Your task to perform on an android device: Open calendar and show me the first week of next month Image 0: 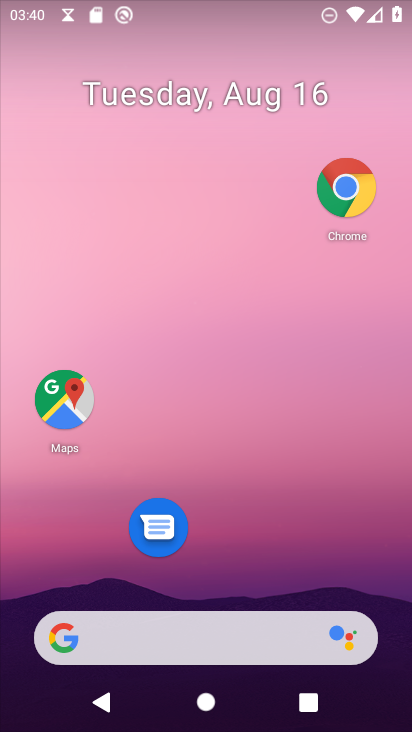
Step 0: drag from (224, 583) to (258, 13)
Your task to perform on an android device: Open calendar and show me the first week of next month Image 1: 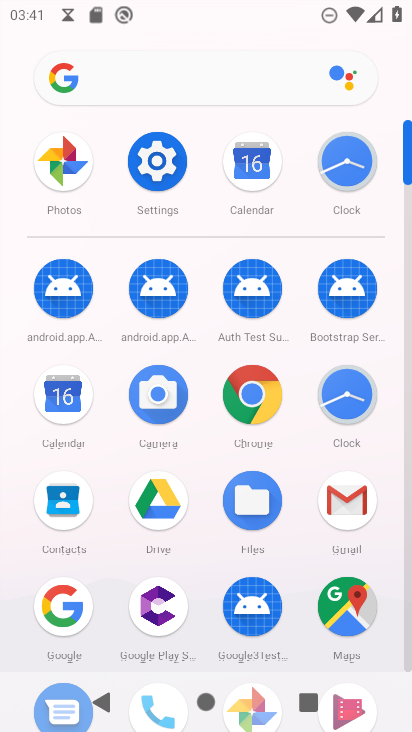
Step 1: click (61, 394)
Your task to perform on an android device: Open calendar and show me the first week of next month Image 2: 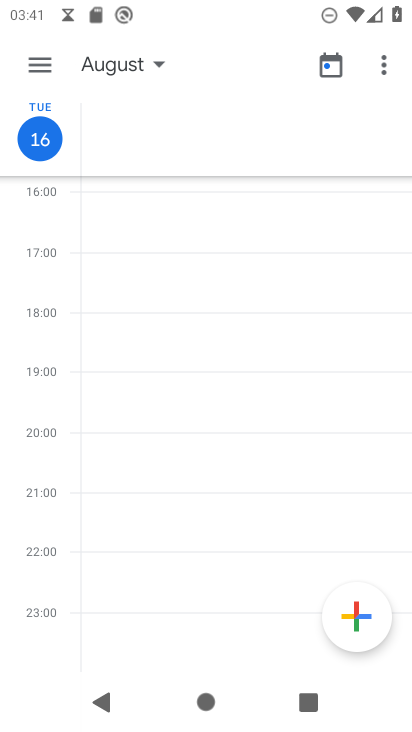
Step 2: click (35, 67)
Your task to perform on an android device: Open calendar and show me the first week of next month Image 3: 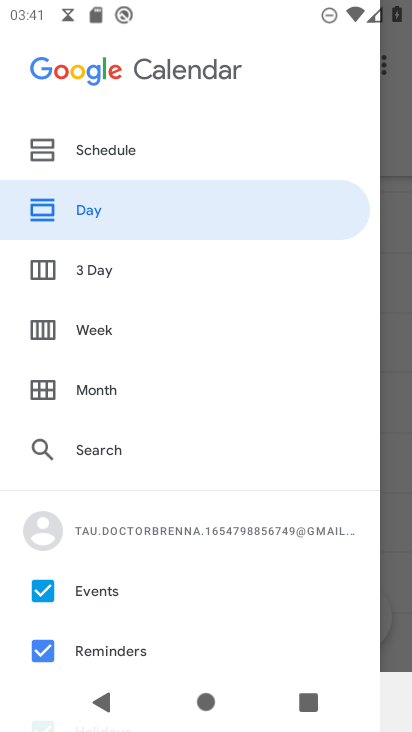
Step 3: drag from (170, 620) to (189, 283)
Your task to perform on an android device: Open calendar and show me the first week of next month Image 4: 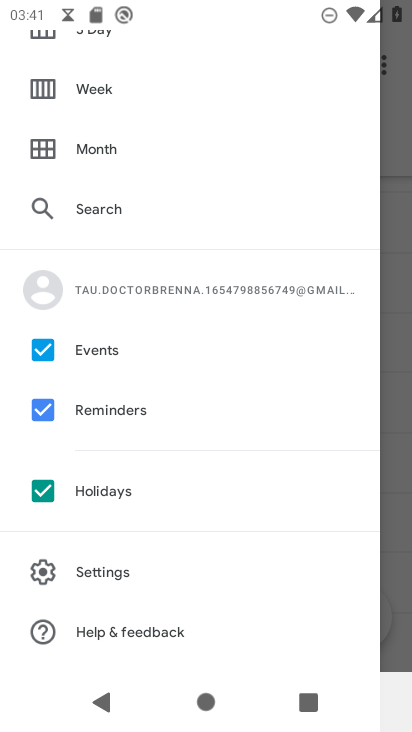
Step 4: click (67, 67)
Your task to perform on an android device: Open calendar and show me the first week of next month Image 5: 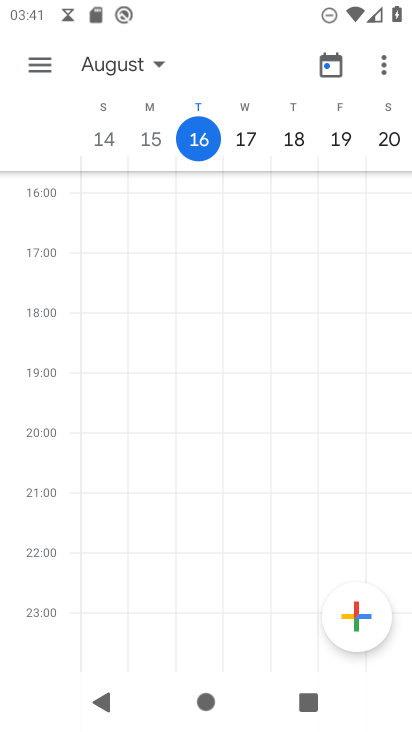
Step 5: click (153, 60)
Your task to perform on an android device: Open calendar and show me the first week of next month Image 6: 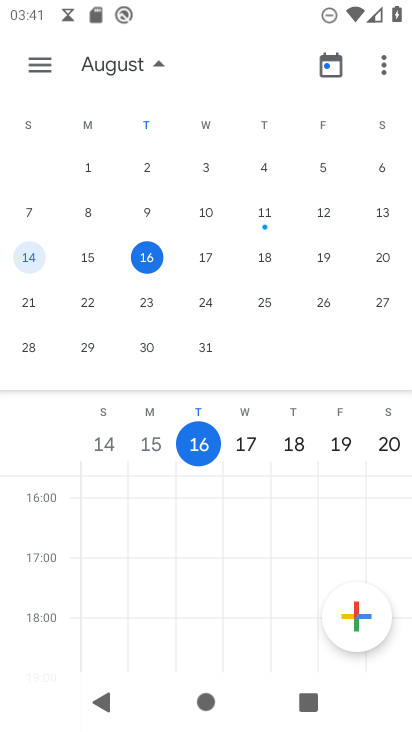
Step 6: drag from (382, 273) to (10, 334)
Your task to perform on an android device: Open calendar and show me the first week of next month Image 7: 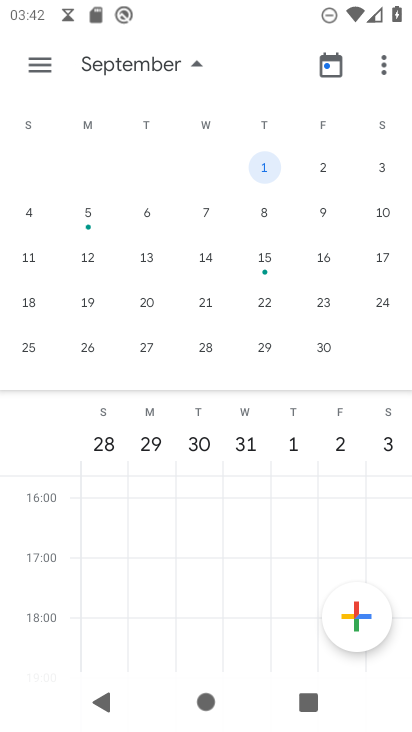
Step 7: click (22, 209)
Your task to perform on an android device: Open calendar and show me the first week of next month Image 8: 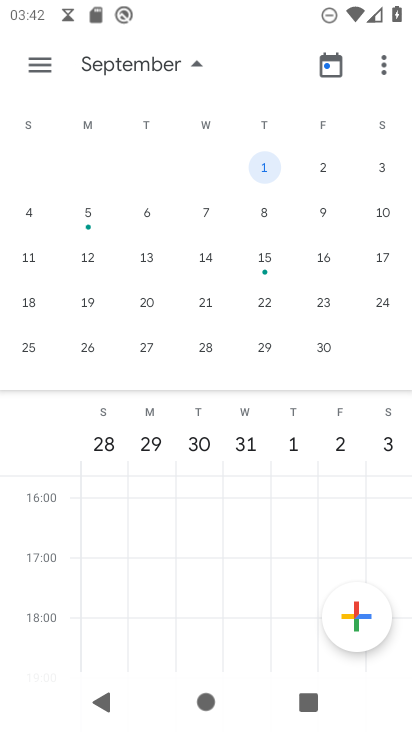
Step 8: click (34, 216)
Your task to perform on an android device: Open calendar and show me the first week of next month Image 9: 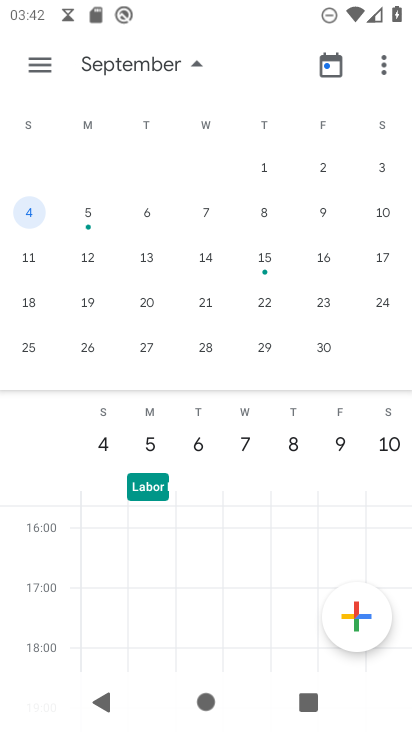
Step 9: click (201, 59)
Your task to perform on an android device: Open calendar and show me the first week of next month Image 10: 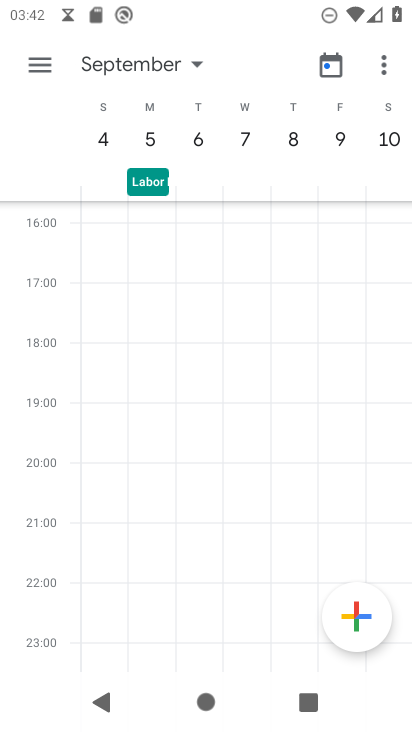
Step 10: task complete